Your task to perform on an android device: View the shopping cart on amazon. Image 0: 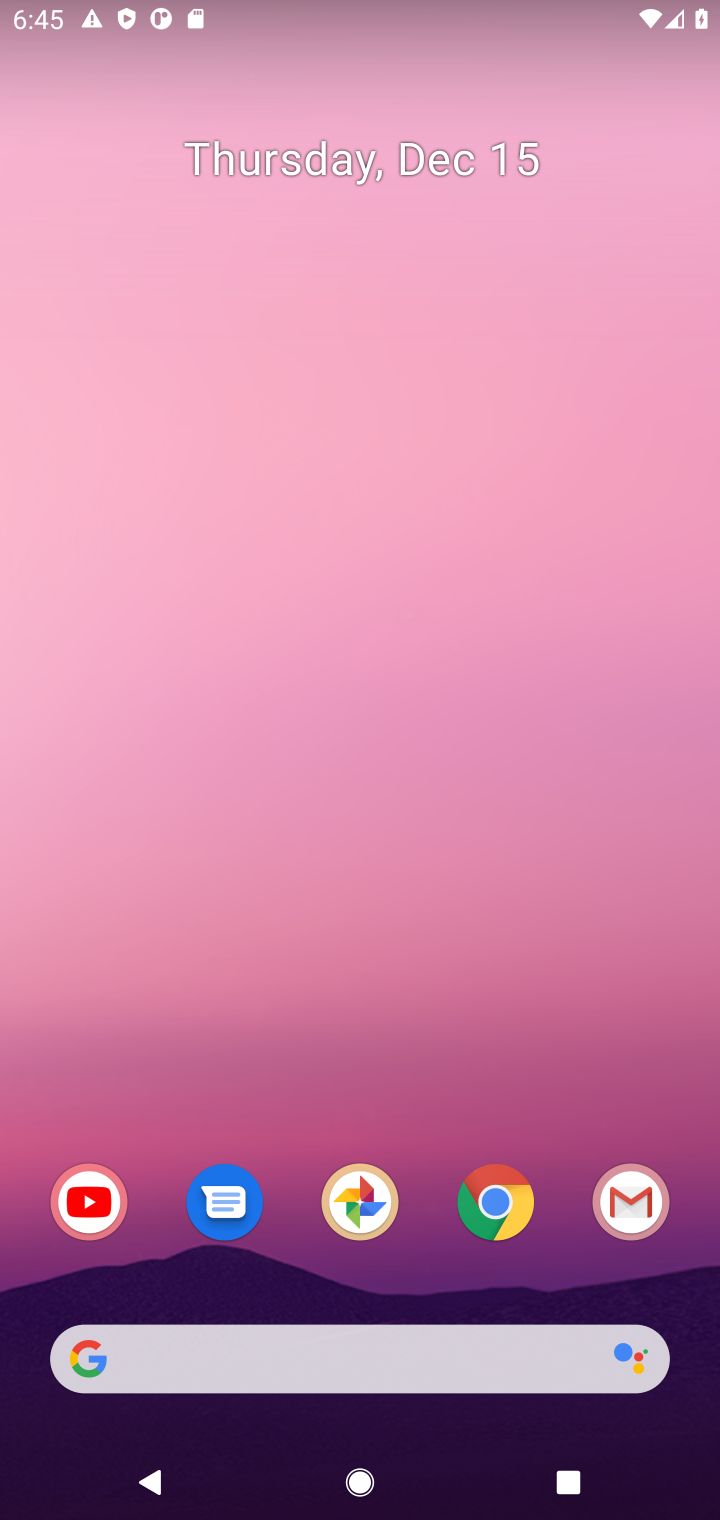
Step 0: click (501, 1205)
Your task to perform on an android device: View the shopping cart on amazon. Image 1: 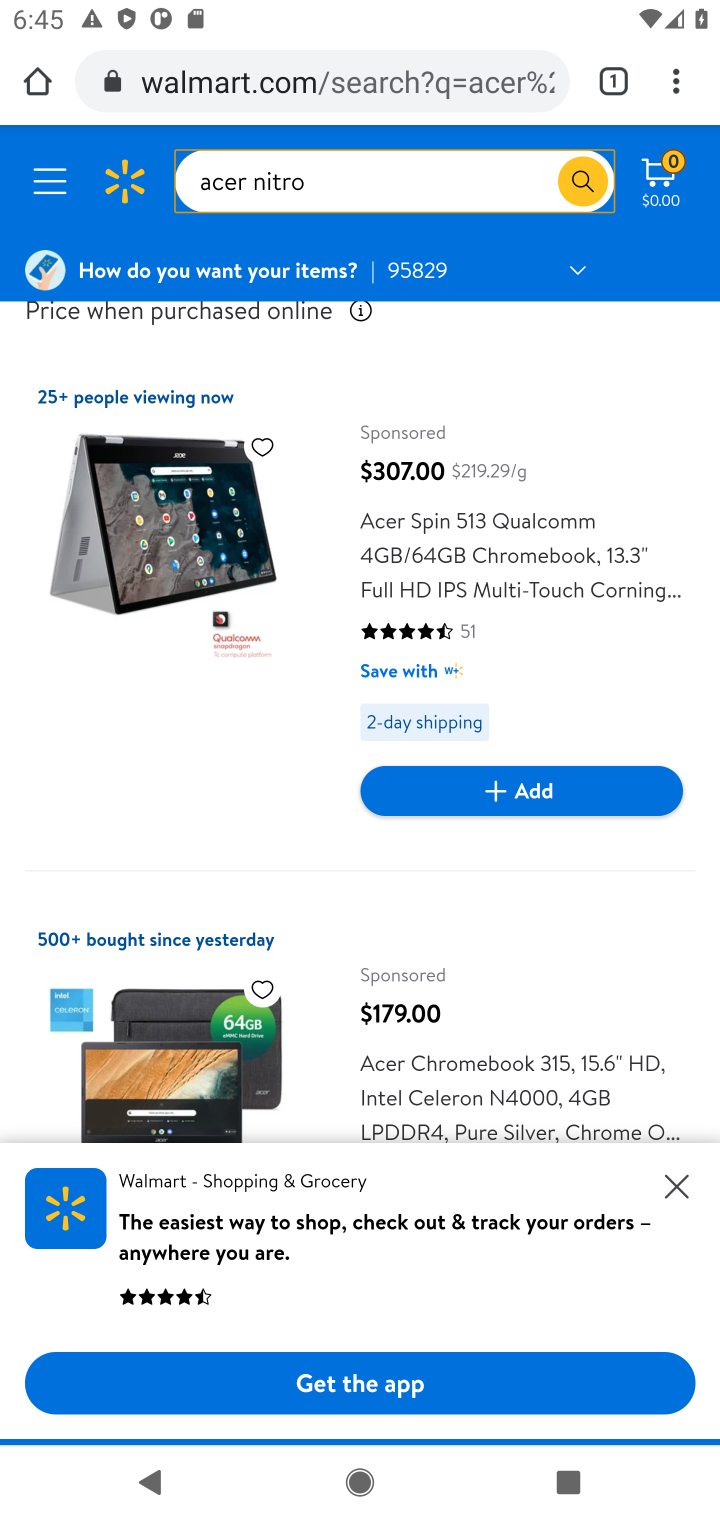
Step 1: click (289, 86)
Your task to perform on an android device: View the shopping cart on amazon. Image 2: 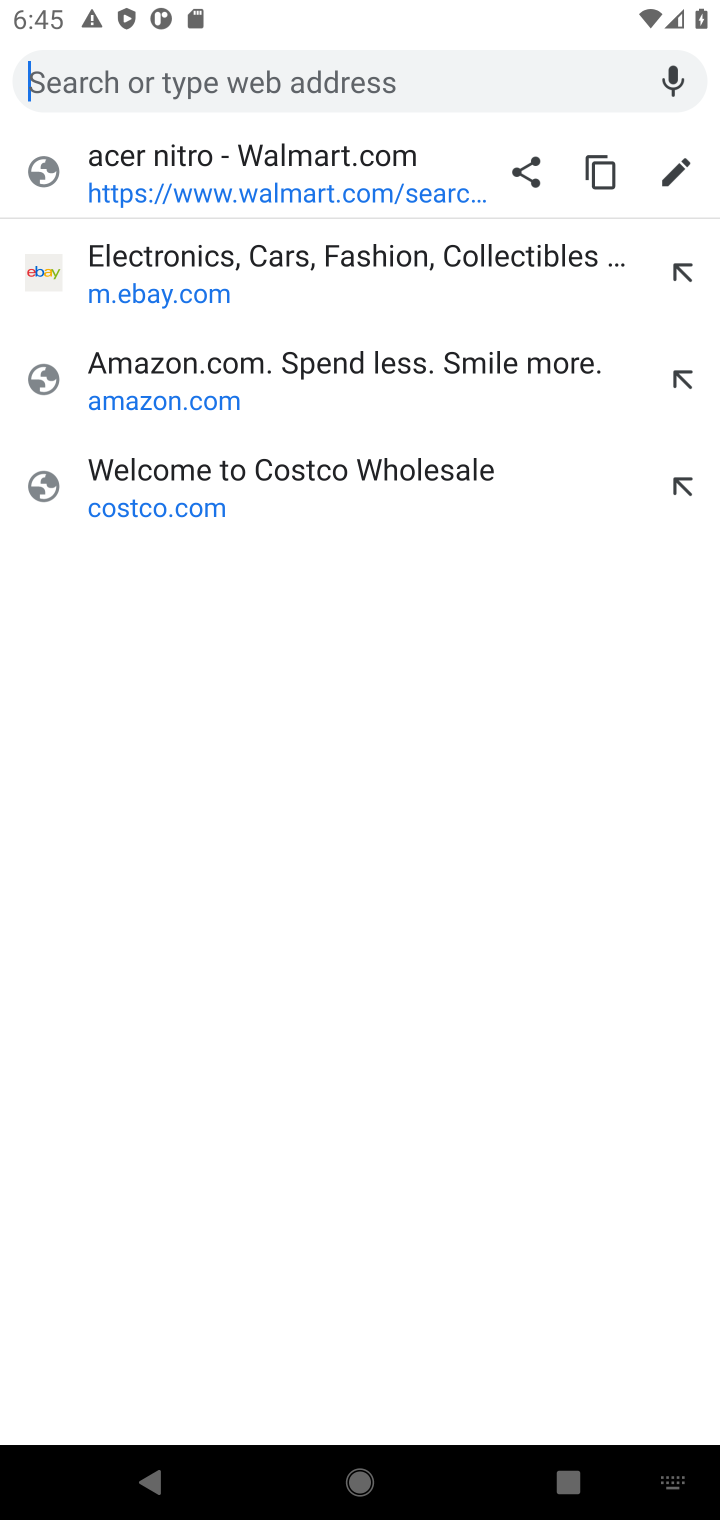
Step 2: click (174, 397)
Your task to perform on an android device: View the shopping cart on amazon. Image 3: 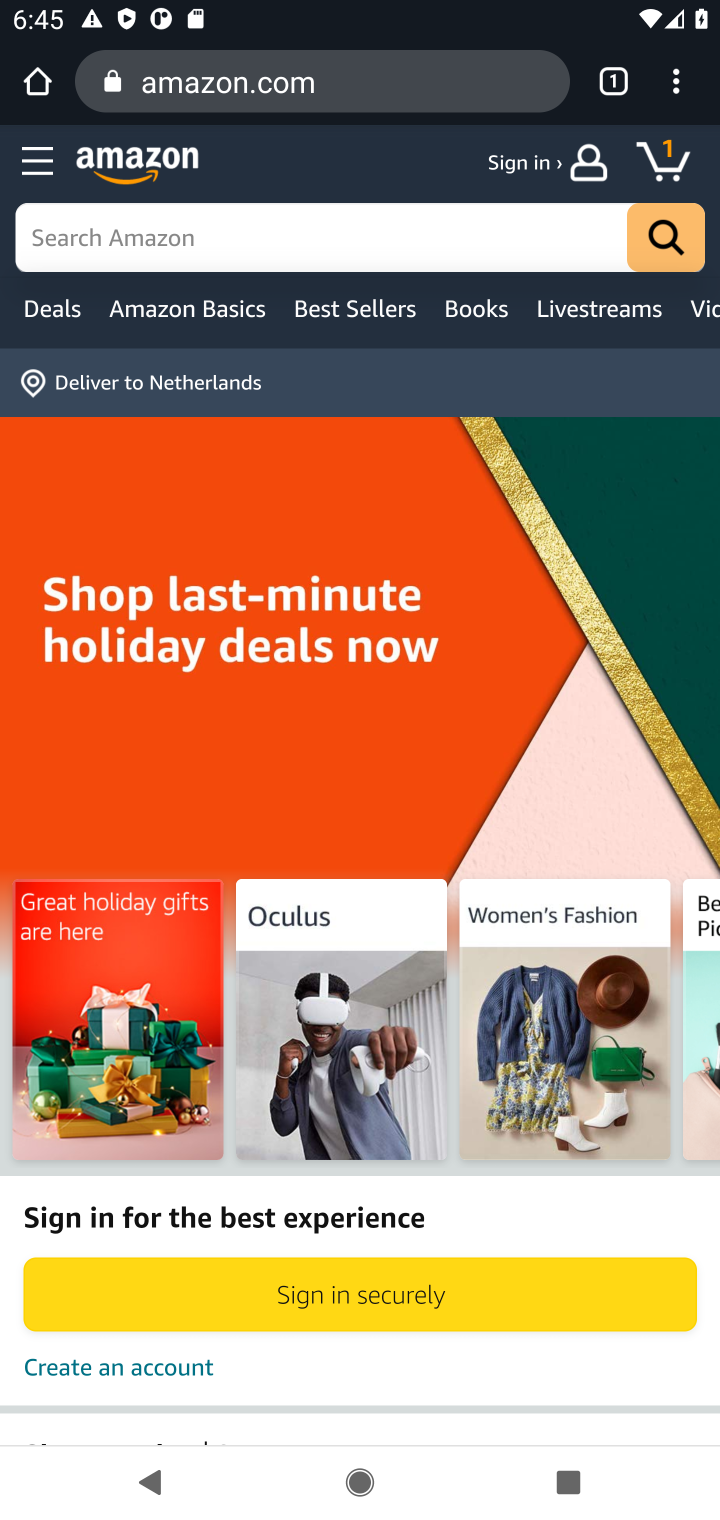
Step 3: click (659, 162)
Your task to perform on an android device: View the shopping cart on amazon. Image 4: 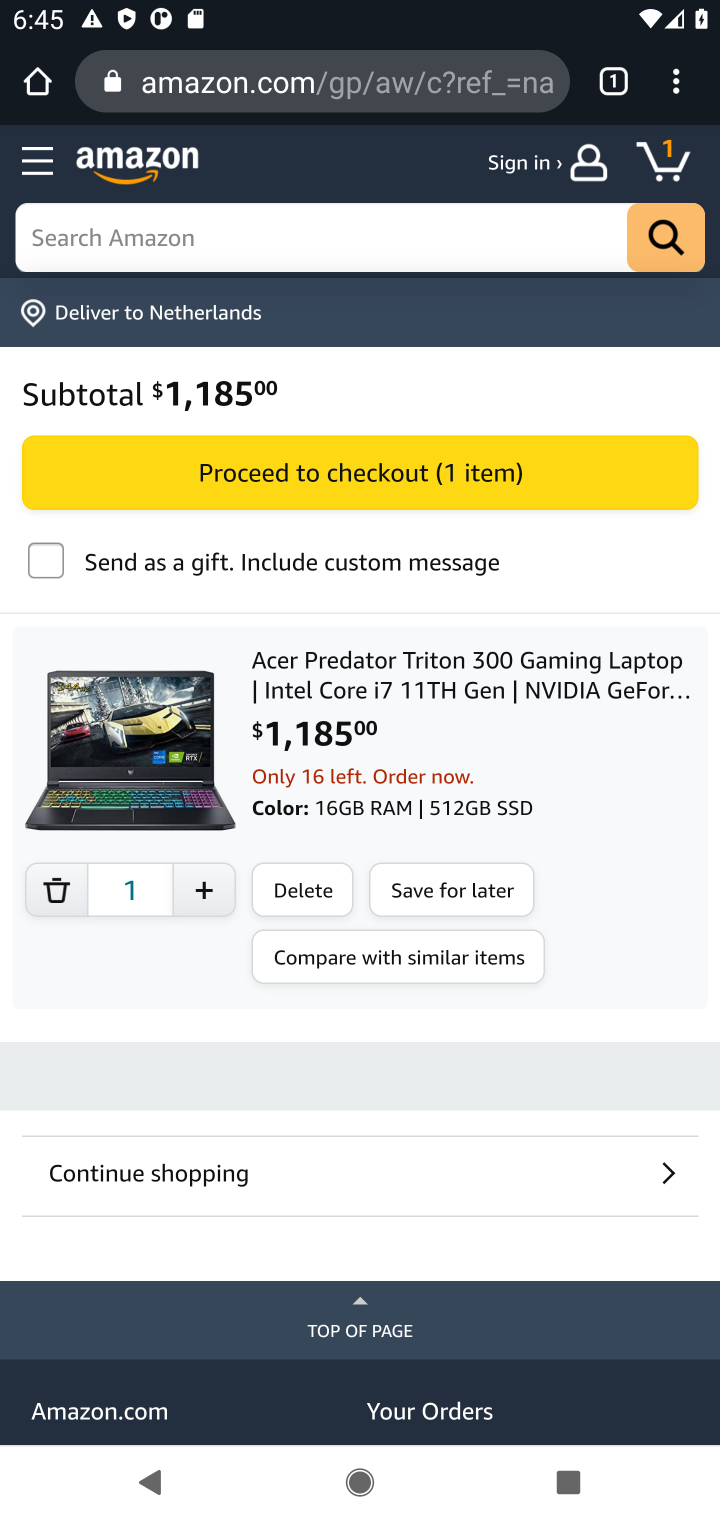
Step 4: task complete